Your task to perform on an android device: Open Google Chrome and click the shortcut for Amazon.com Image 0: 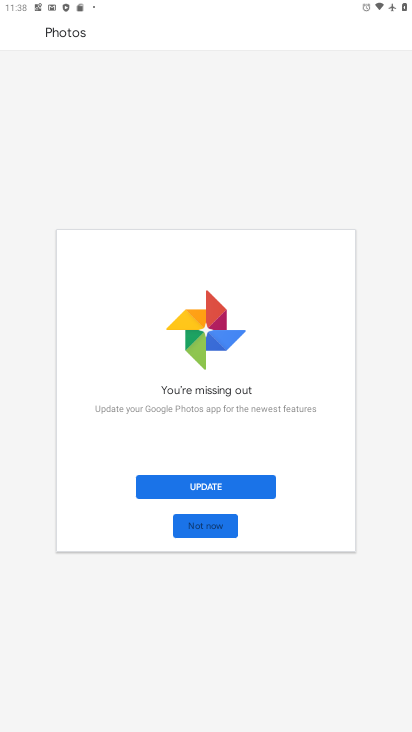
Step 0: press home button
Your task to perform on an android device: Open Google Chrome and click the shortcut for Amazon.com Image 1: 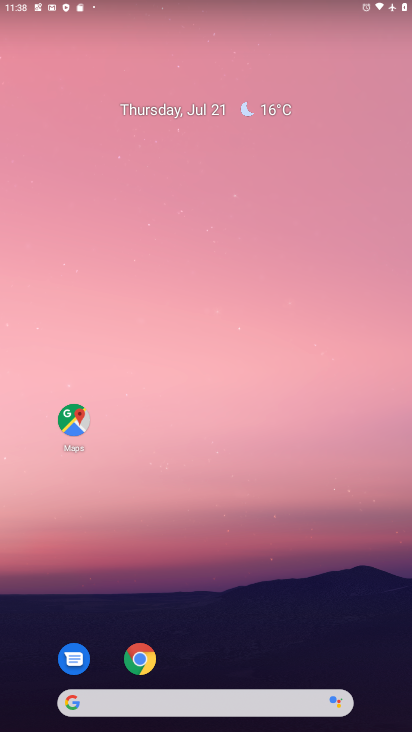
Step 1: click (142, 657)
Your task to perform on an android device: Open Google Chrome and click the shortcut for Amazon.com Image 2: 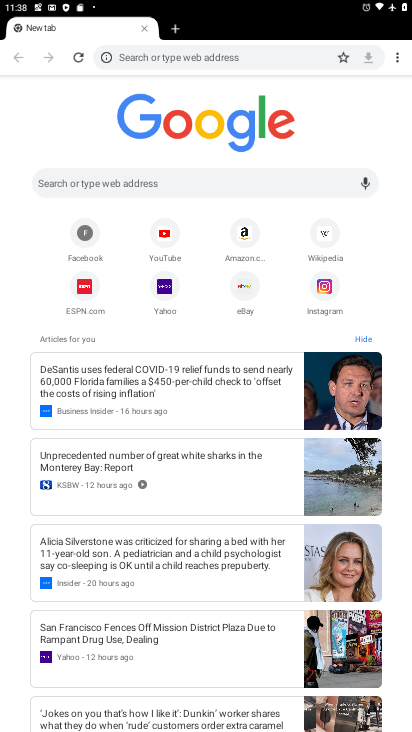
Step 2: click (241, 233)
Your task to perform on an android device: Open Google Chrome and click the shortcut for Amazon.com Image 3: 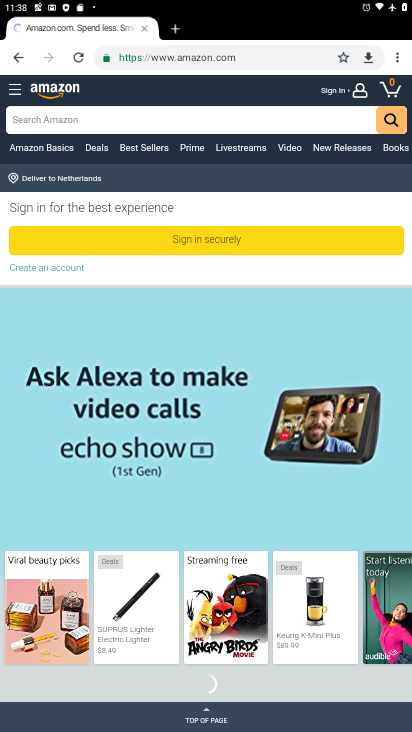
Step 3: task complete